Your task to perform on an android device: turn off location Image 0: 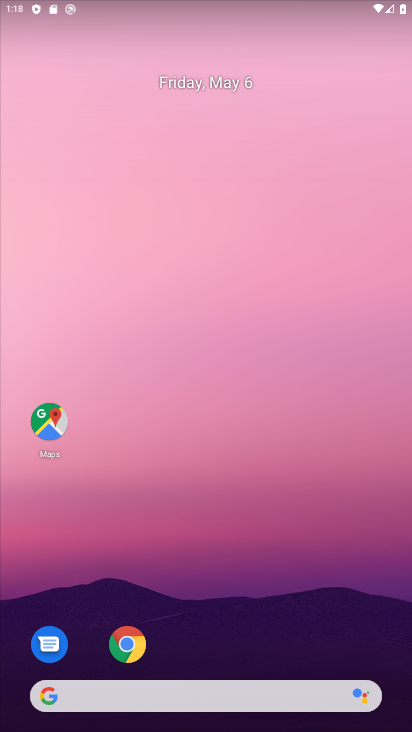
Step 0: drag from (210, 662) to (324, 52)
Your task to perform on an android device: turn off location Image 1: 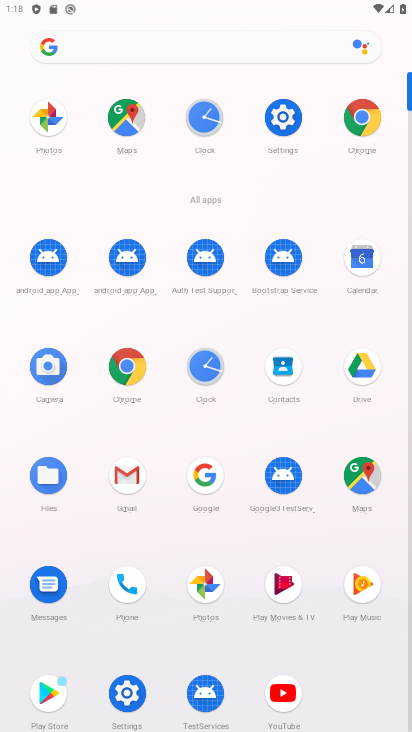
Step 1: click (281, 111)
Your task to perform on an android device: turn off location Image 2: 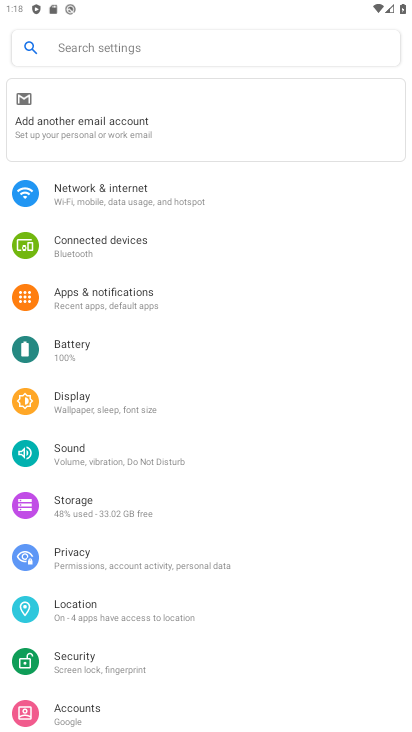
Step 2: click (105, 606)
Your task to perform on an android device: turn off location Image 3: 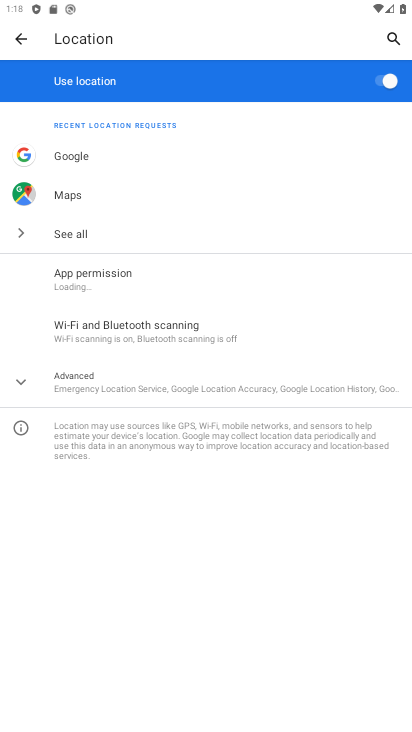
Step 3: click (386, 82)
Your task to perform on an android device: turn off location Image 4: 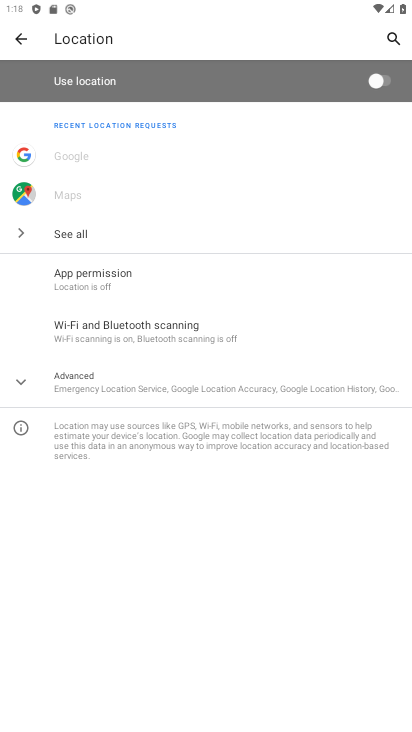
Step 4: task complete